Your task to perform on an android device: Go to privacy settings Image 0: 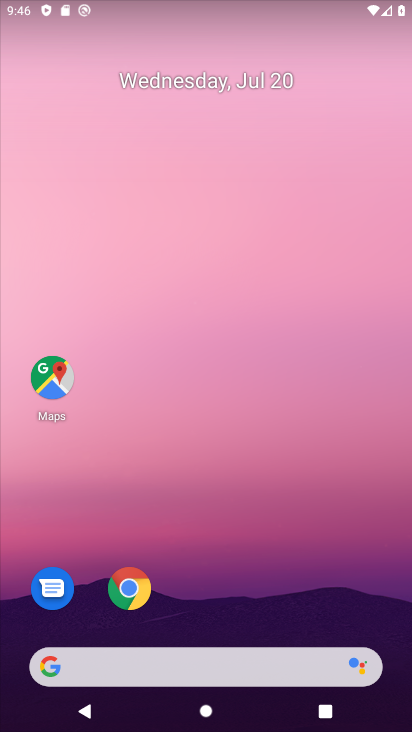
Step 0: drag from (360, 606) to (334, 251)
Your task to perform on an android device: Go to privacy settings Image 1: 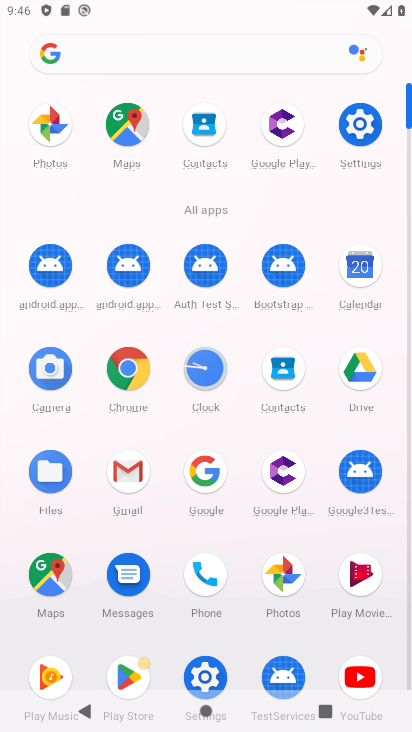
Step 1: click (202, 676)
Your task to perform on an android device: Go to privacy settings Image 2: 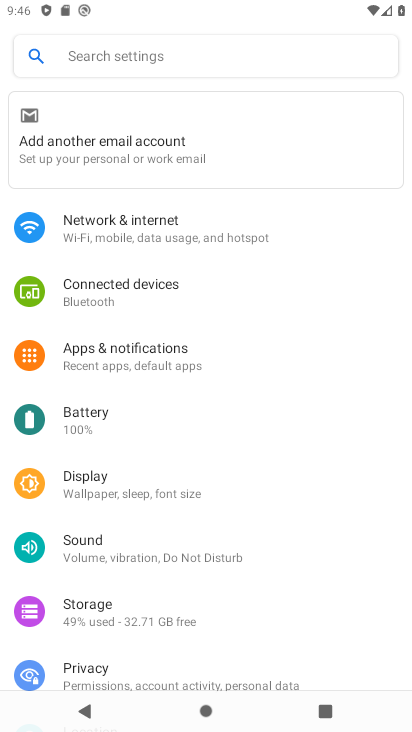
Step 2: drag from (209, 633) to (224, 324)
Your task to perform on an android device: Go to privacy settings Image 3: 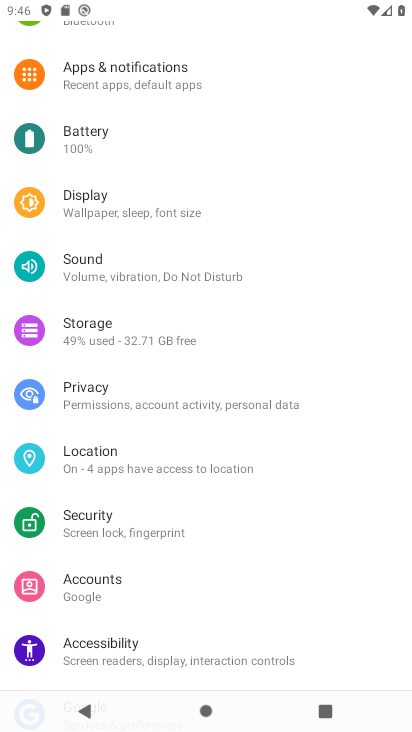
Step 3: click (88, 393)
Your task to perform on an android device: Go to privacy settings Image 4: 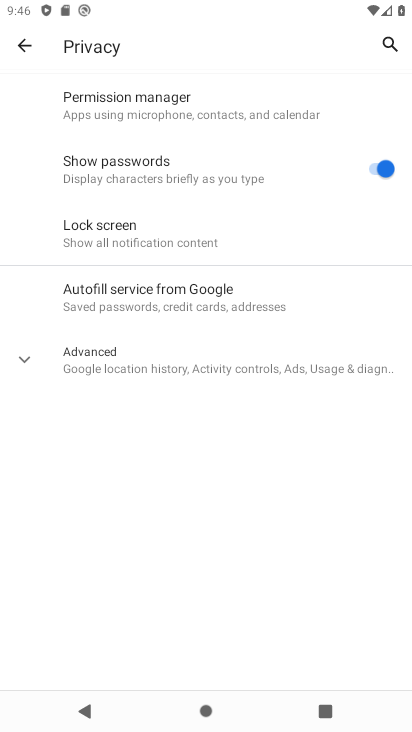
Step 4: click (29, 363)
Your task to perform on an android device: Go to privacy settings Image 5: 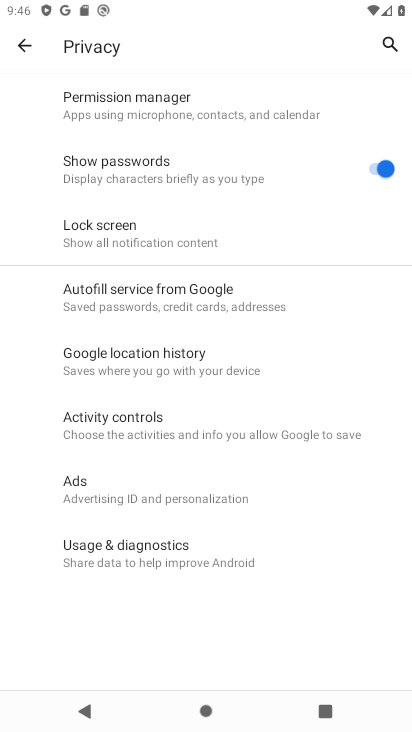
Step 5: task complete